Your task to perform on an android device: turn on sleep mode Image 0: 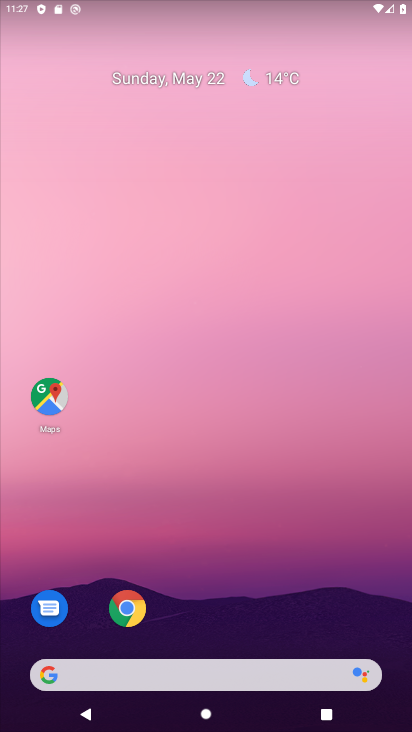
Step 0: drag from (213, 581) to (214, 176)
Your task to perform on an android device: turn on sleep mode Image 1: 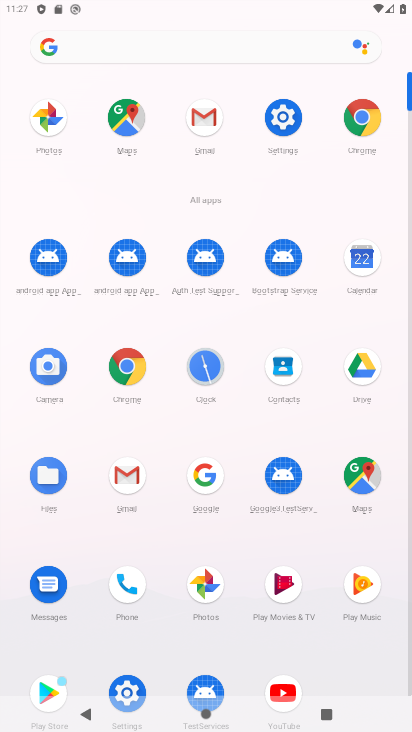
Step 1: click (283, 137)
Your task to perform on an android device: turn on sleep mode Image 2: 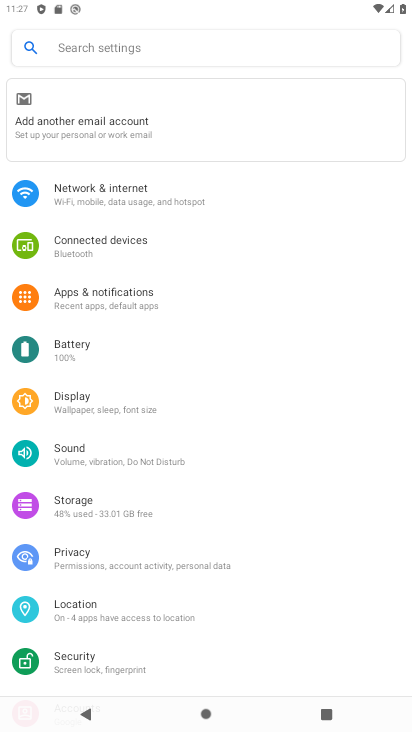
Step 2: click (203, 412)
Your task to perform on an android device: turn on sleep mode Image 3: 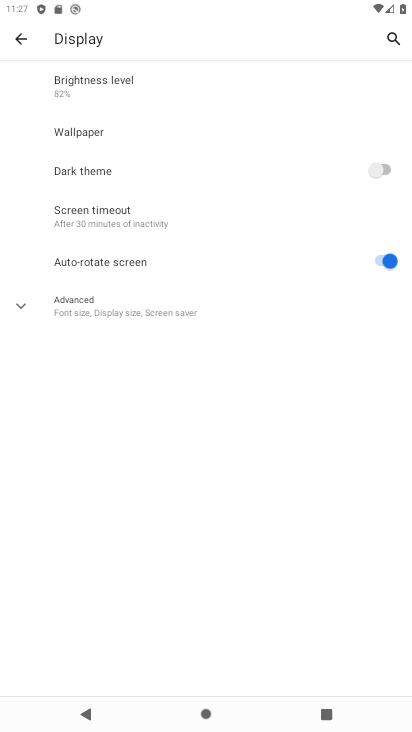
Step 3: click (224, 314)
Your task to perform on an android device: turn on sleep mode Image 4: 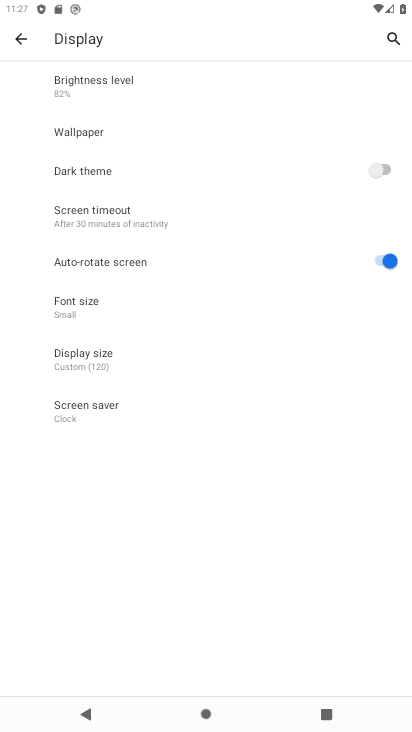
Step 4: task complete